Your task to perform on an android device: What's the weather? Image 0: 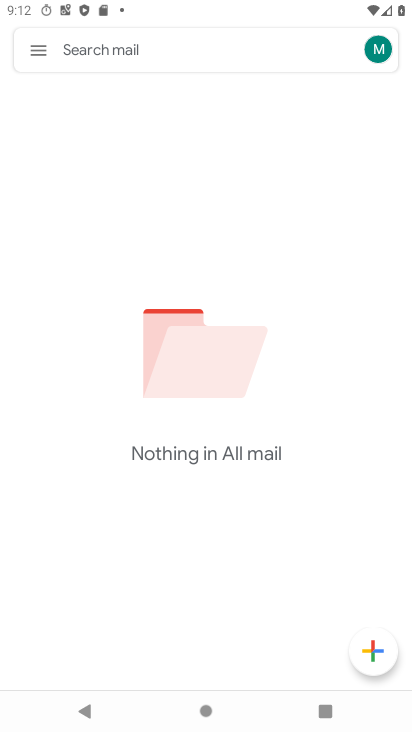
Step 0: press home button
Your task to perform on an android device: What's the weather? Image 1: 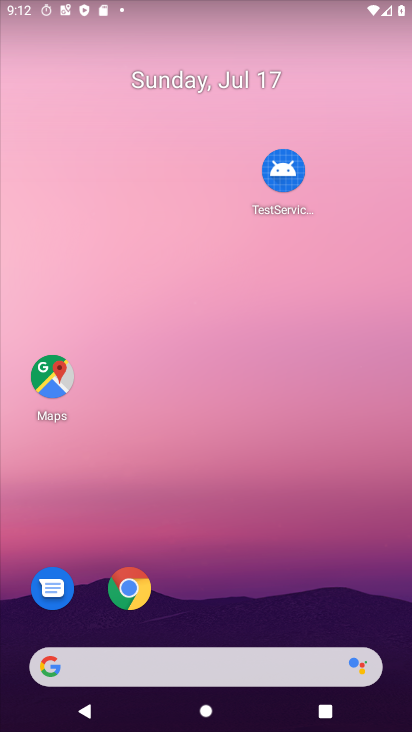
Step 1: drag from (250, 637) to (377, 113)
Your task to perform on an android device: What's the weather? Image 2: 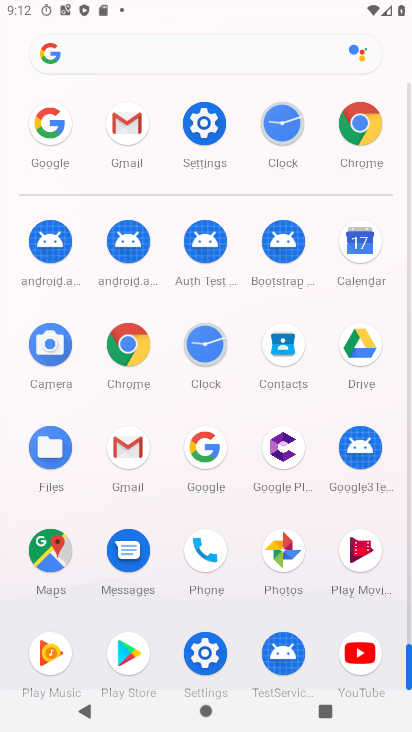
Step 2: click (368, 133)
Your task to perform on an android device: What's the weather? Image 3: 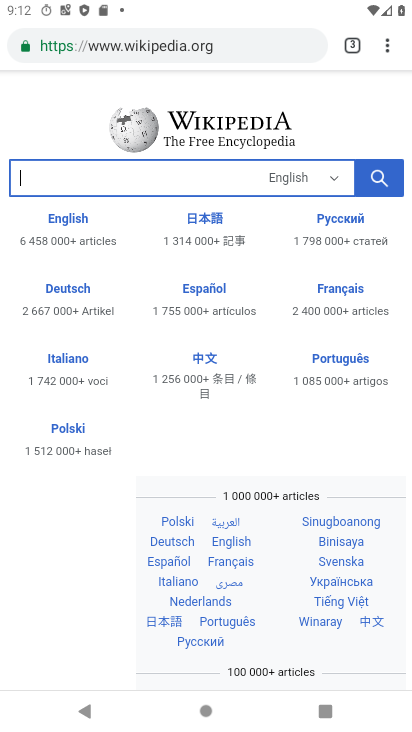
Step 3: click (225, 49)
Your task to perform on an android device: What's the weather? Image 4: 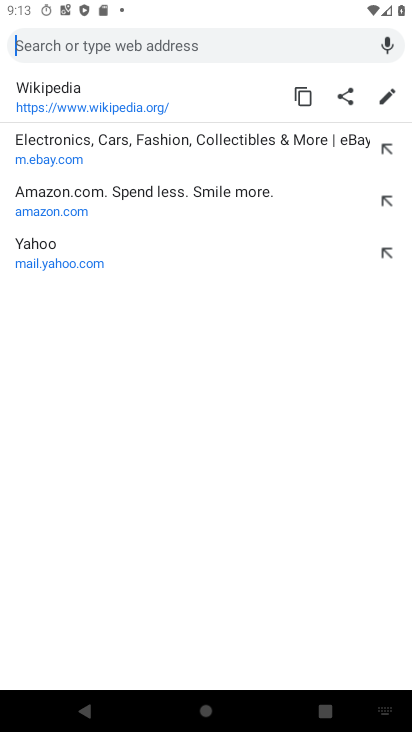
Step 4: type "weather"
Your task to perform on an android device: What's the weather? Image 5: 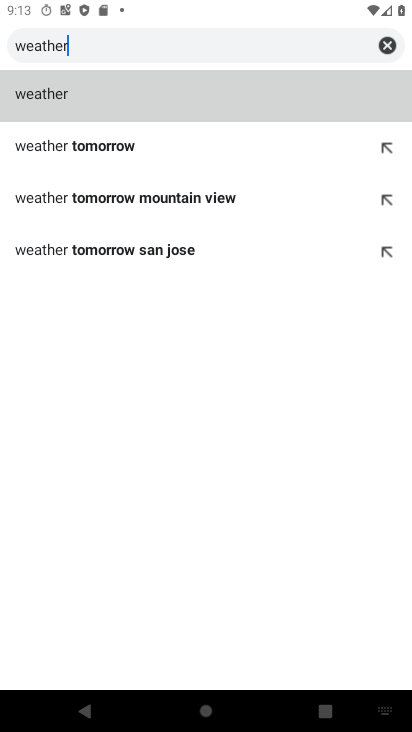
Step 5: click (78, 104)
Your task to perform on an android device: What's the weather? Image 6: 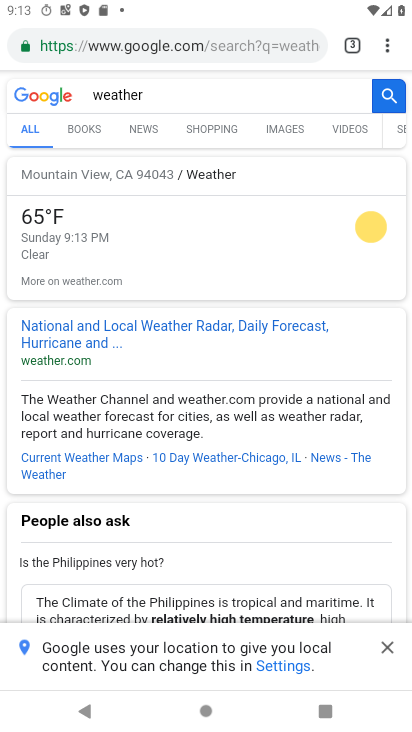
Step 6: task complete